Your task to perform on an android device: Turn off the flashlight Image 0: 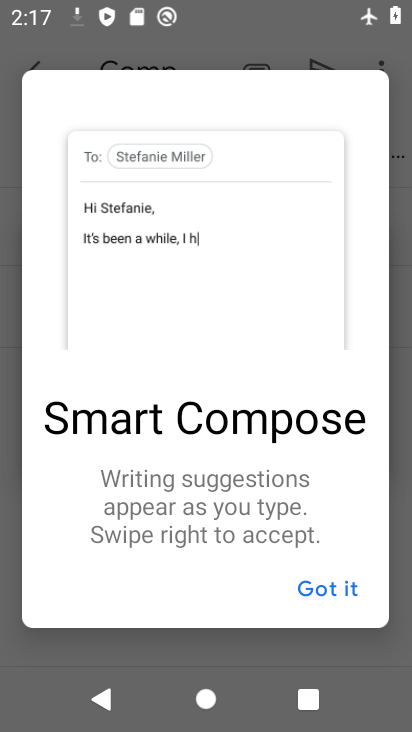
Step 0: press home button
Your task to perform on an android device: Turn off the flashlight Image 1: 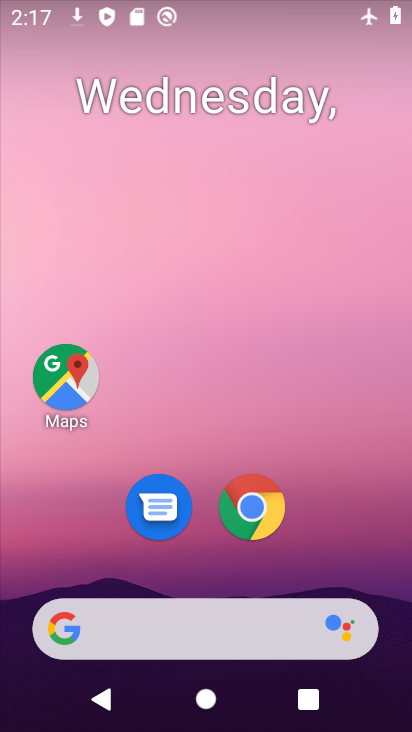
Step 1: drag from (366, 16) to (205, 514)
Your task to perform on an android device: Turn off the flashlight Image 2: 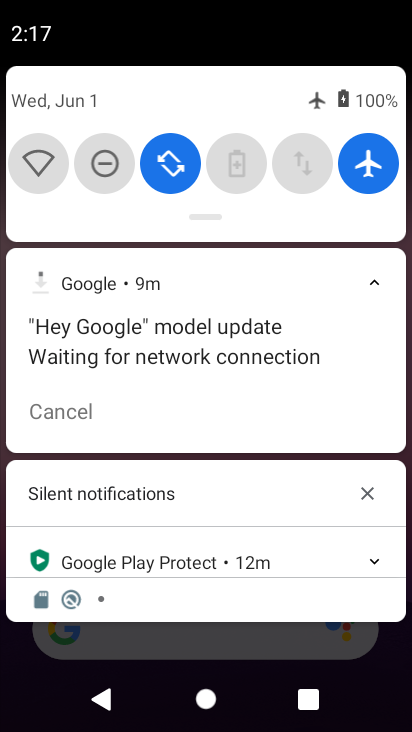
Step 2: click (384, 150)
Your task to perform on an android device: Turn off the flashlight Image 3: 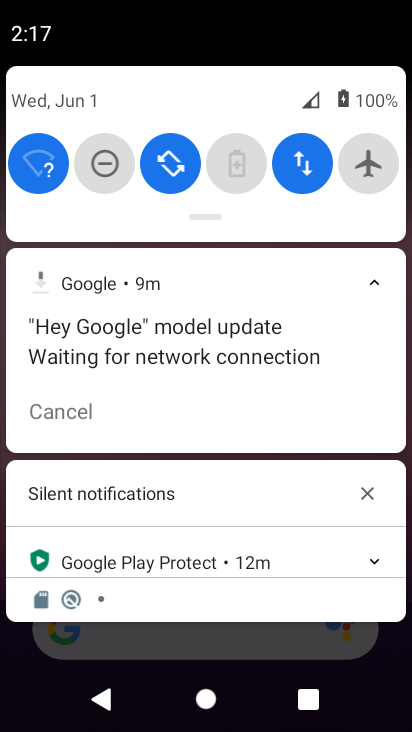
Step 3: drag from (250, 213) to (142, 686)
Your task to perform on an android device: Turn off the flashlight Image 4: 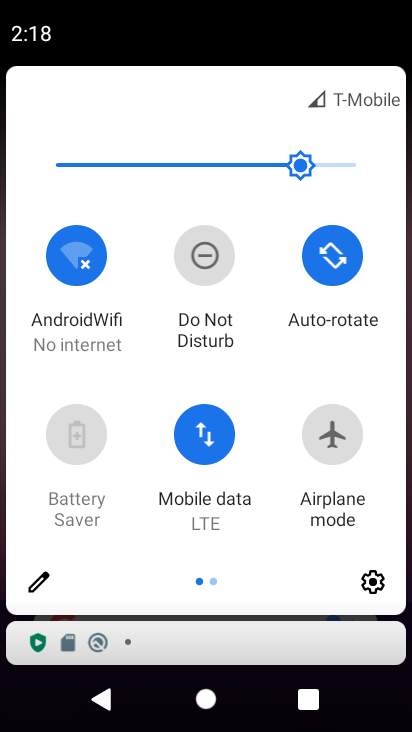
Step 4: drag from (352, 336) to (48, 355)
Your task to perform on an android device: Turn off the flashlight Image 5: 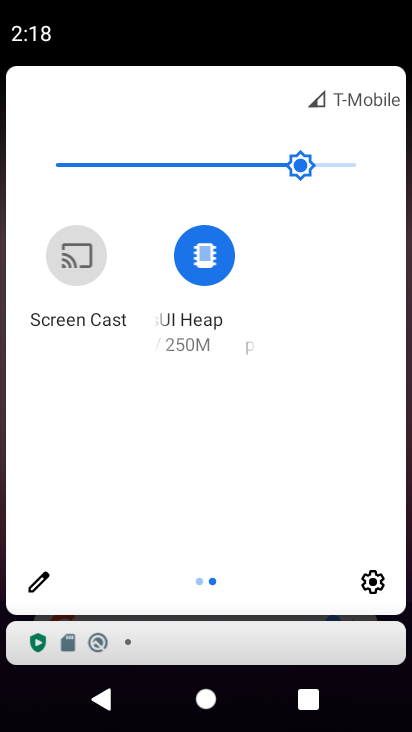
Step 5: click (44, 580)
Your task to perform on an android device: Turn off the flashlight Image 6: 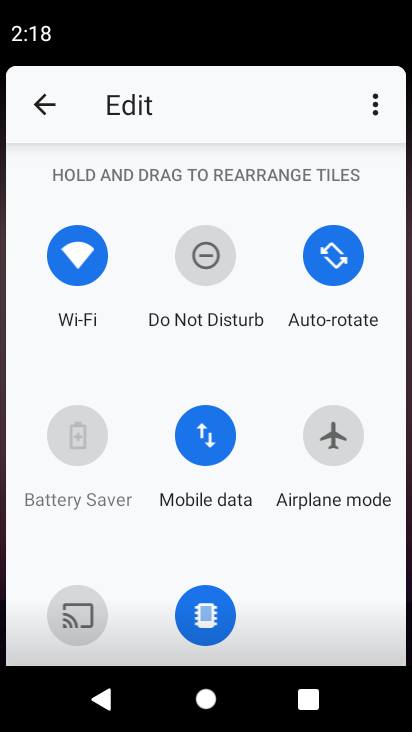
Step 6: task complete